Your task to perform on an android device: create a new album in the google photos Image 0: 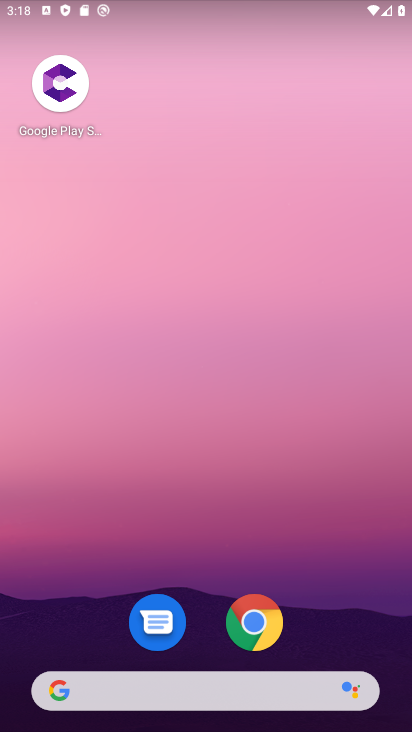
Step 0: drag from (225, 675) to (266, 7)
Your task to perform on an android device: create a new album in the google photos Image 1: 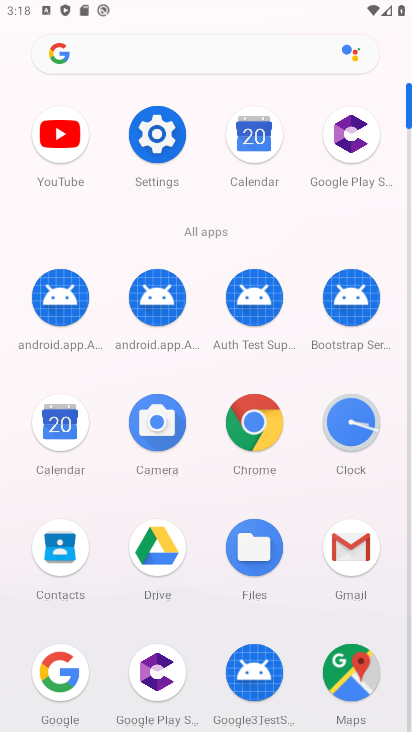
Step 1: drag from (296, 622) to (220, 152)
Your task to perform on an android device: create a new album in the google photos Image 2: 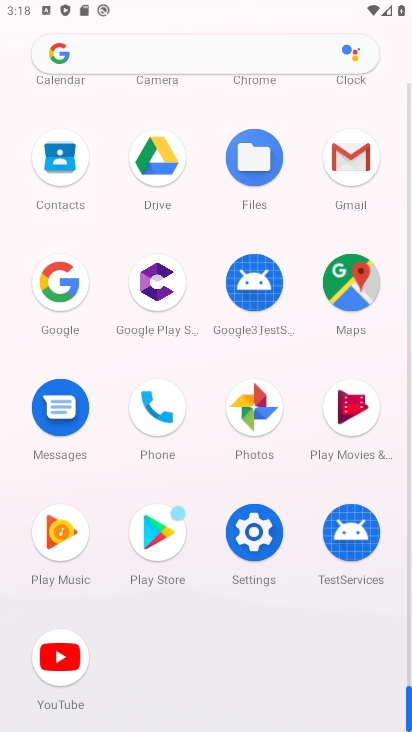
Step 2: click (263, 425)
Your task to perform on an android device: create a new album in the google photos Image 3: 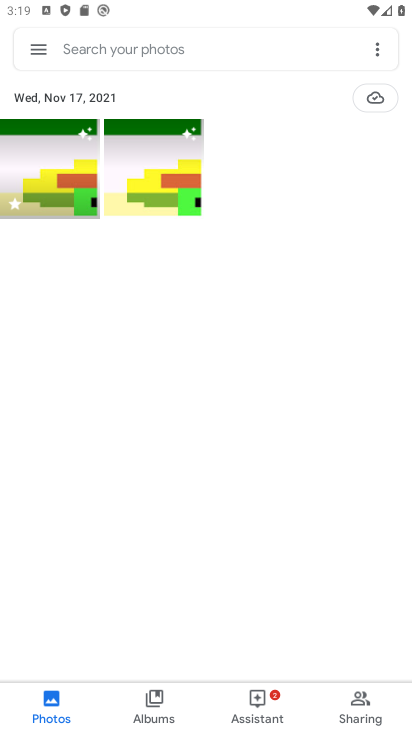
Step 3: click (143, 185)
Your task to perform on an android device: create a new album in the google photos Image 4: 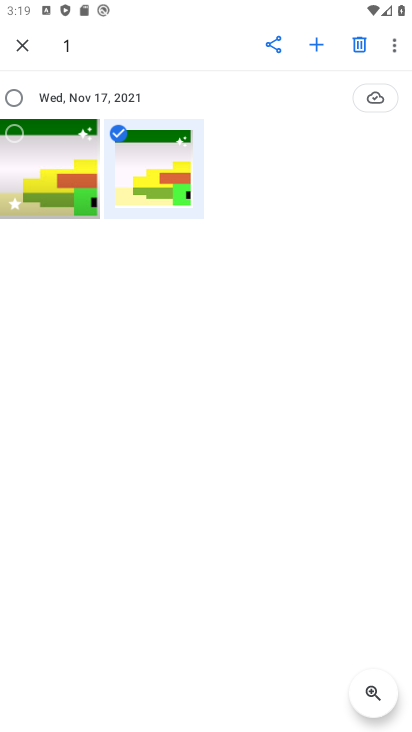
Step 4: click (318, 55)
Your task to perform on an android device: create a new album in the google photos Image 5: 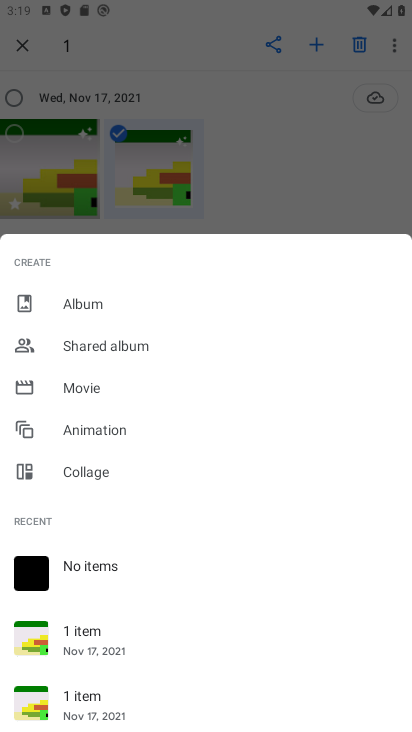
Step 5: click (86, 301)
Your task to perform on an android device: create a new album in the google photos Image 6: 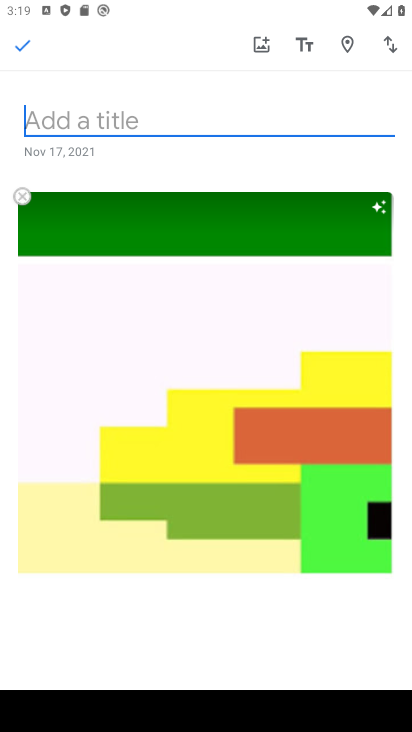
Step 6: type "jhvmv"
Your task to perform on an android device: create a new album in the google photos Image 7: 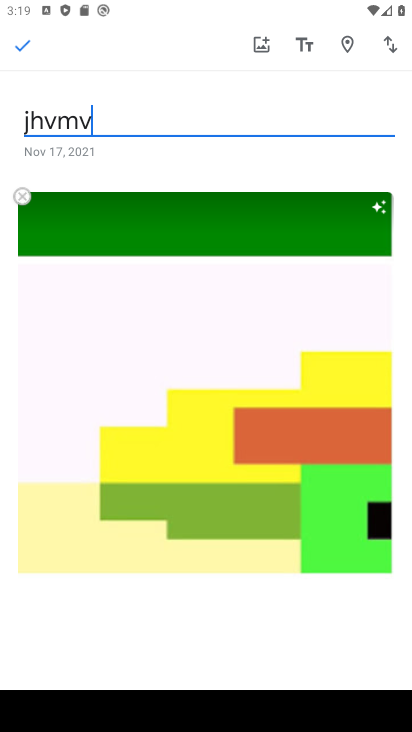
Step 7: click (27, 42)
Your task to perform on an android device: create a new album in the google photos Image 8: 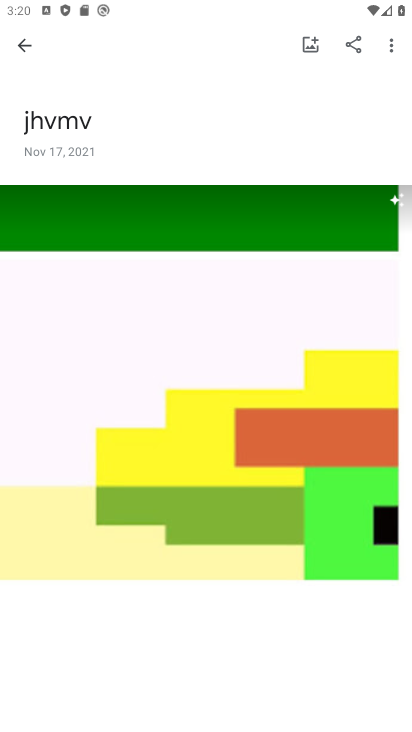
Step 8: task complete